Your task to perform on an android device: add a label to a message in the gmail app Image 0: 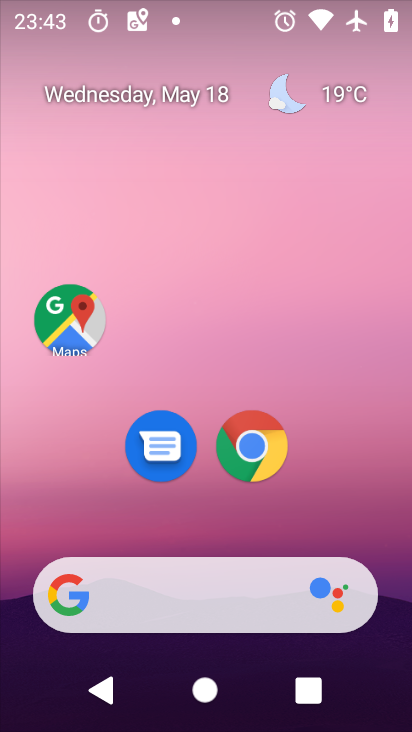
Step 0: press home button
Your task to perform on an android device: add a label to a message in the gmail app Image 1: 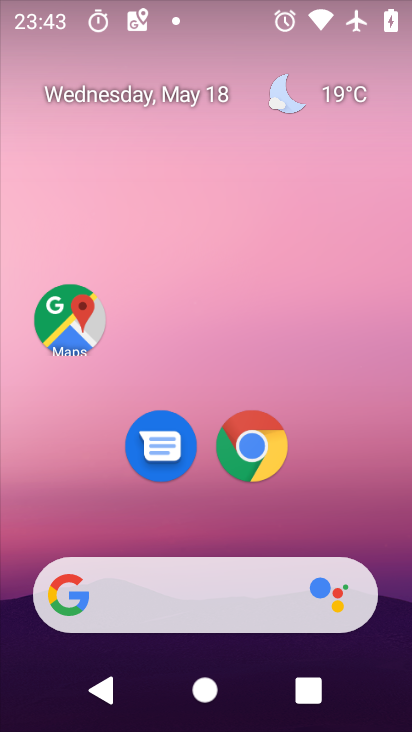
Step 1: drag from (185, 597) to (335, 29)
Your task to perform on an android device: add a label to a message in the gmail app Image 2: 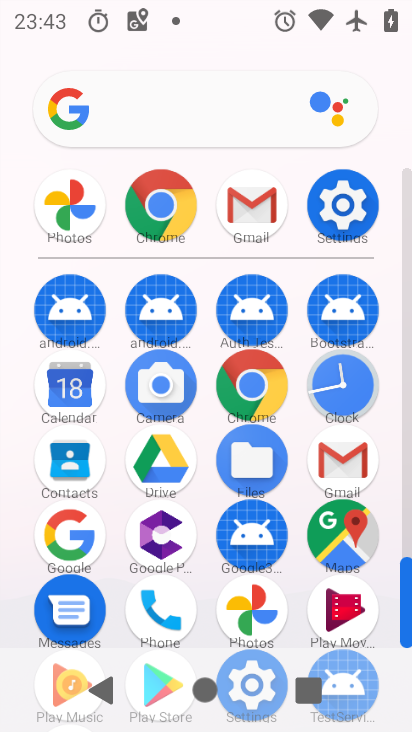
Step 2: click (246, 213)
Your task to perform on an android device: add a label to a message in the gmail app Image 3: 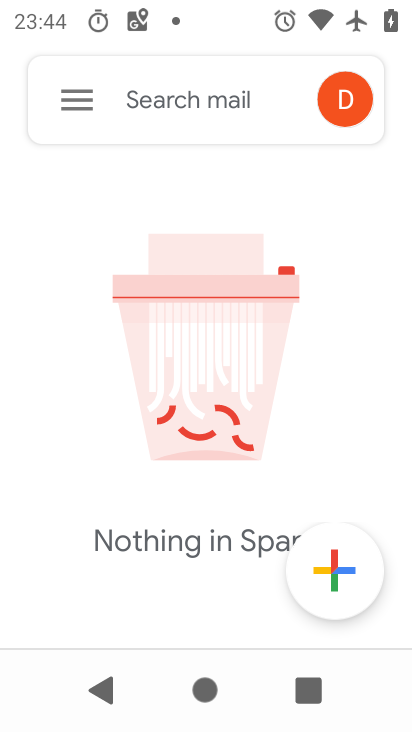
Step 3: task complete